Your task to perform on an android device: Go to sound settings Image 0: 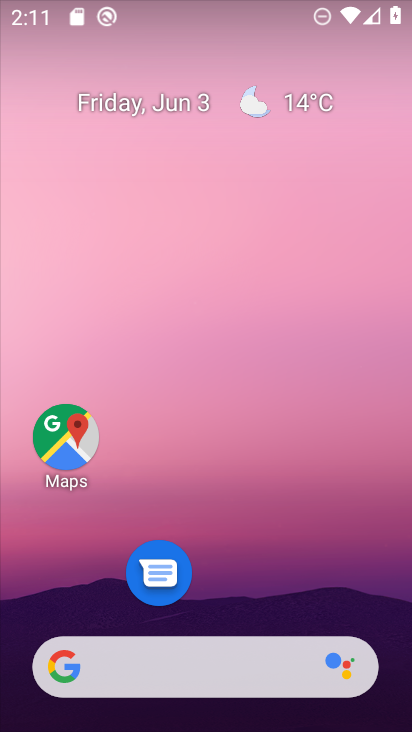
Step 0: drag from (307, 614) to (290, 89)
Your task to perform on an android device: Go to sound settings Image 1: 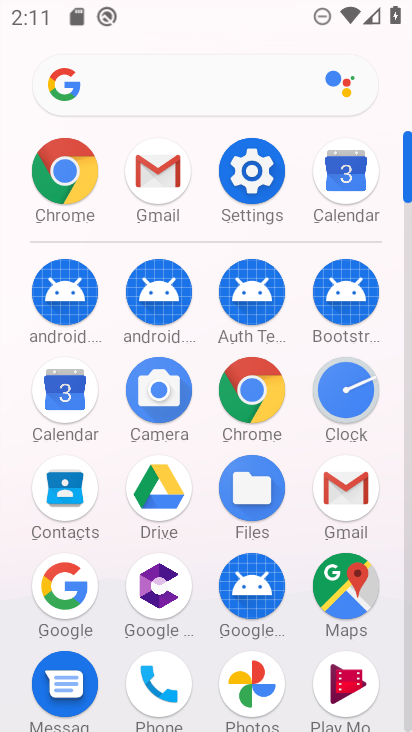
Step 1: click (260, 182)
Your task to perform on an android device: Go to sound settings Image 2: 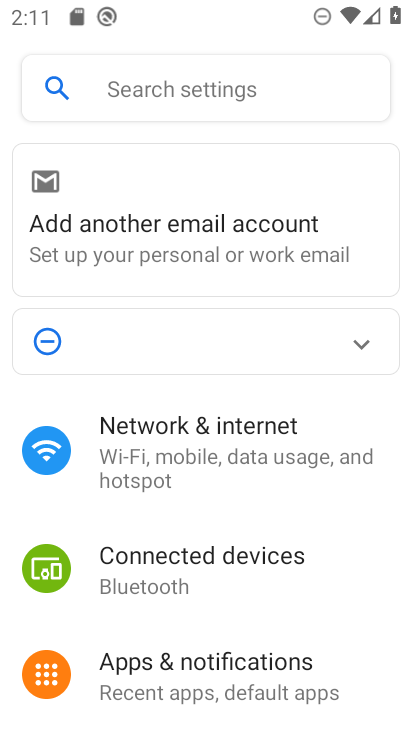
Step 2: drag from (290, 595) to (294, 158)
Your task to perform on an android device: Go to sound settings Image 3: 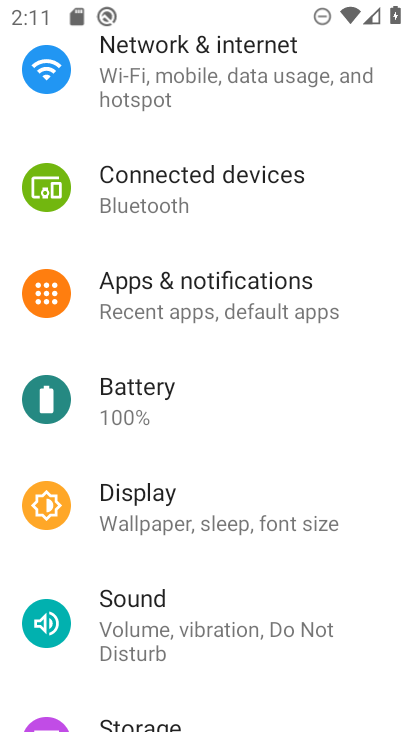
Step 3: click (201, 626)
Your task to perform on an android device: Go to sound settings Image 4: 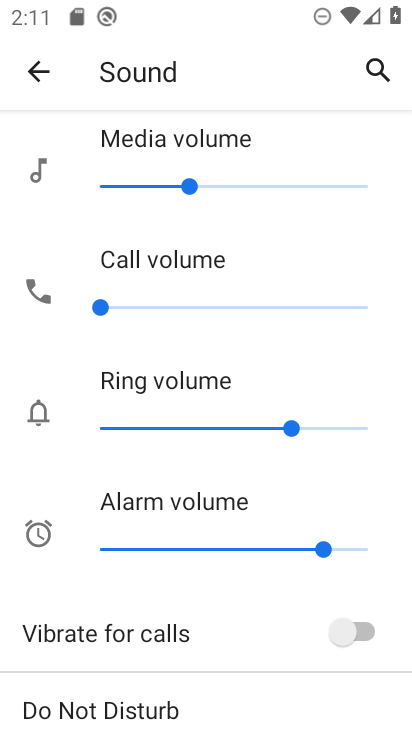
Step 4: task complete